Your task to perform on an android device: Open the stopwatch Image 0: 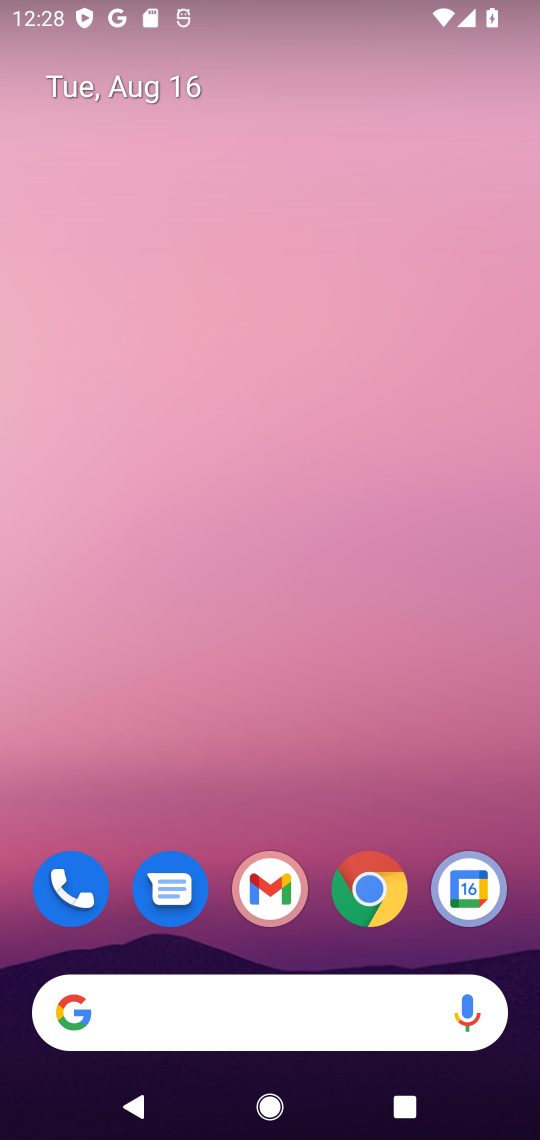
Step 0: drag from (276, 959) to (324, 108)
Your task to perform on an android device: Open the stopwatch Image 1: 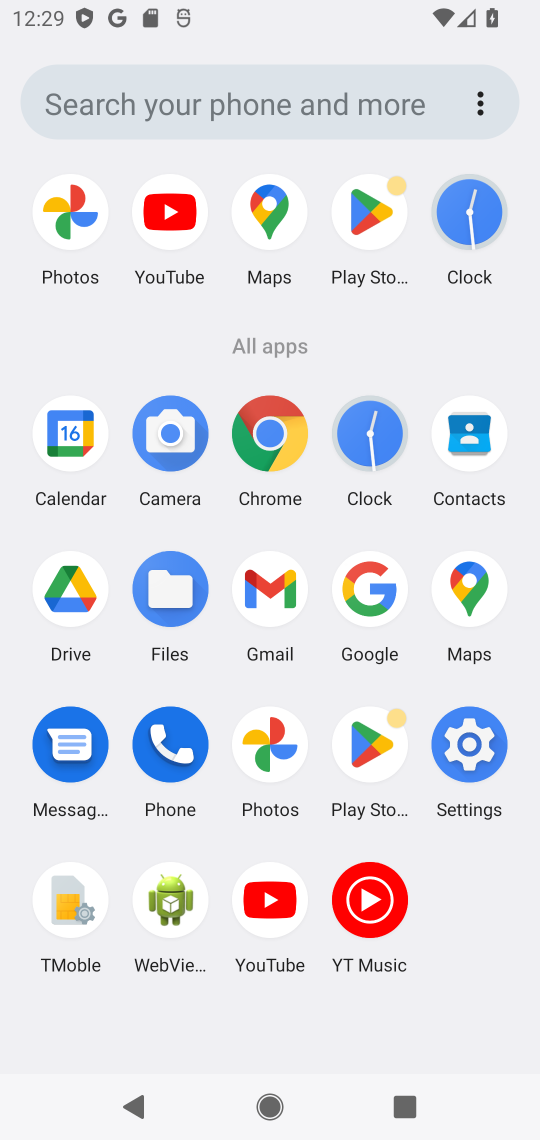
Step 1: click (460, 198)
Your task to perform on an android device: Open the stopwatch Image 2: 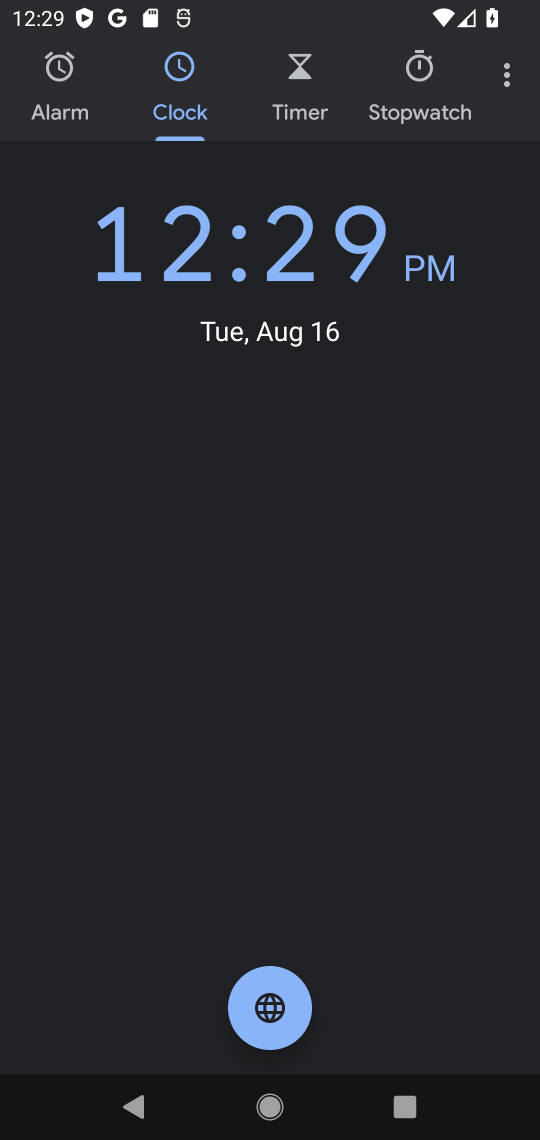
Step 2: click (427, 93)
Your task to perform on an android device: Open the stopwatch Image 3: 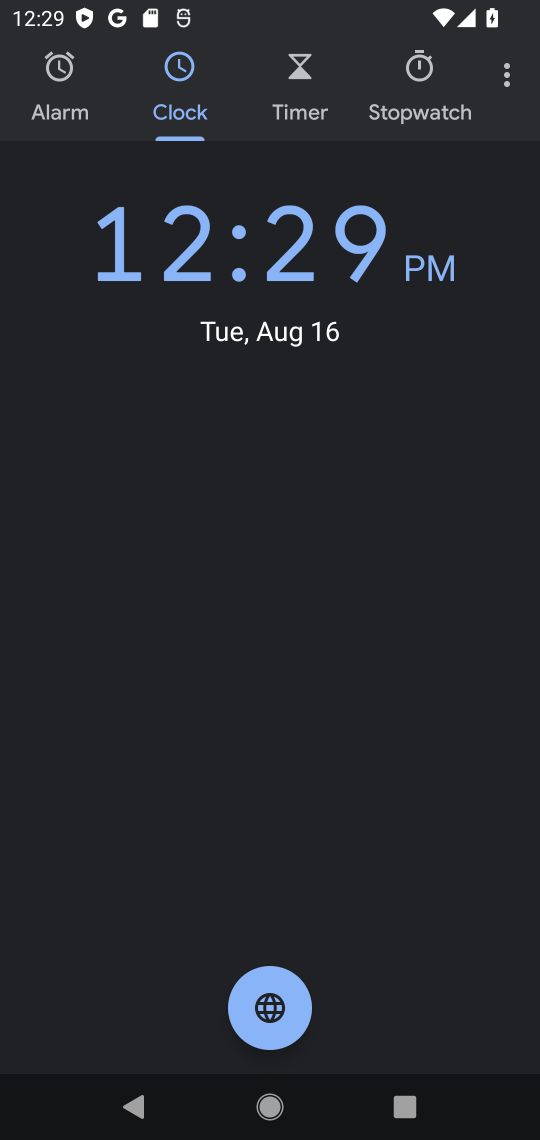
Step 3: click (409, 77)
Your task to perform on an android device: Open the stopwatch Image 4: 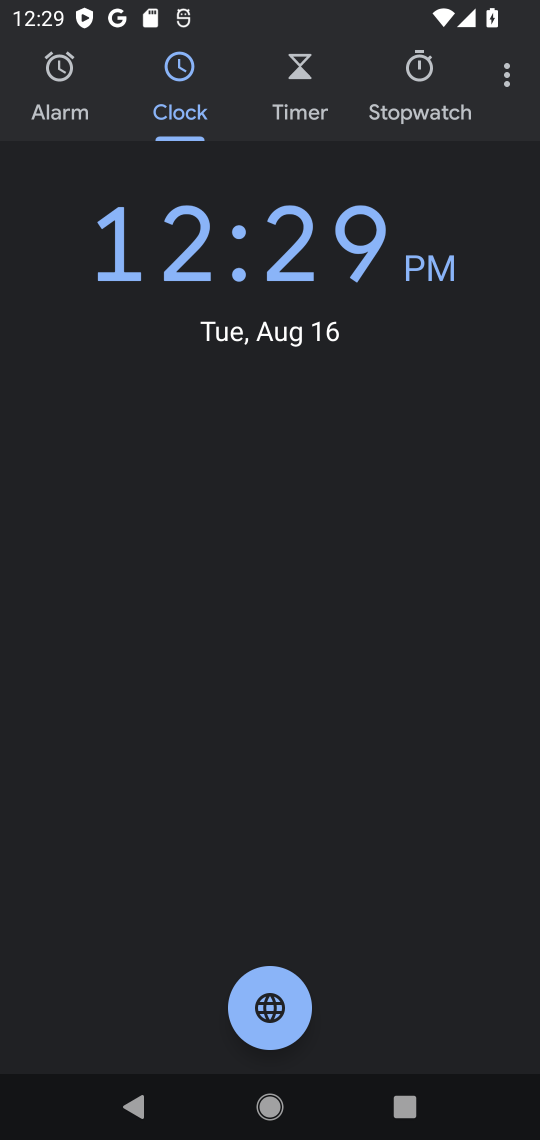
Step 4: click (420, 96)
Your task to perform on an android device: Open the stopwatch Image 5: 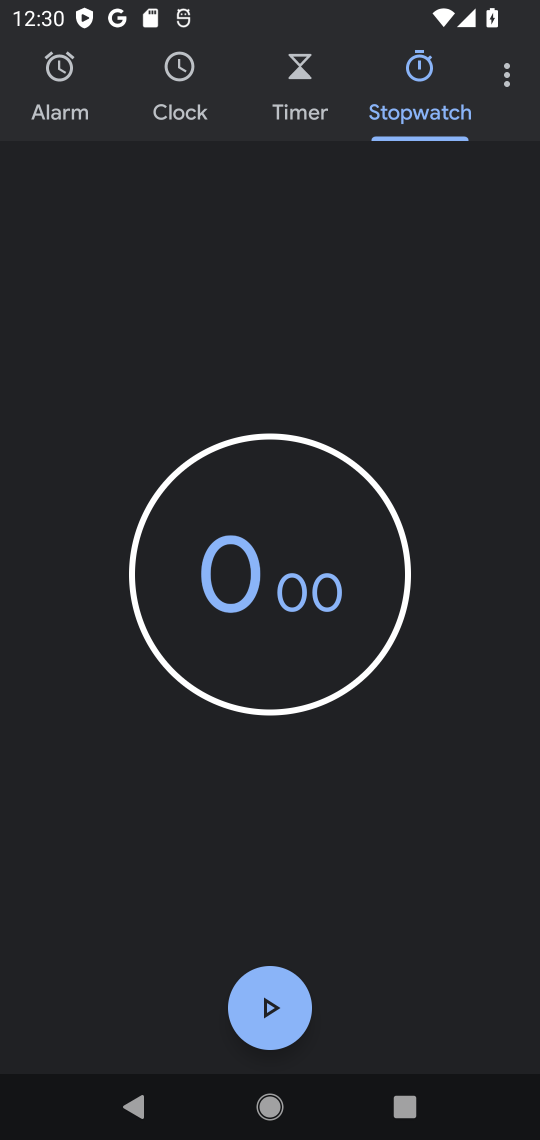
Step 5: task complete